Your task to perform on an android device: Open network settings Image 0: 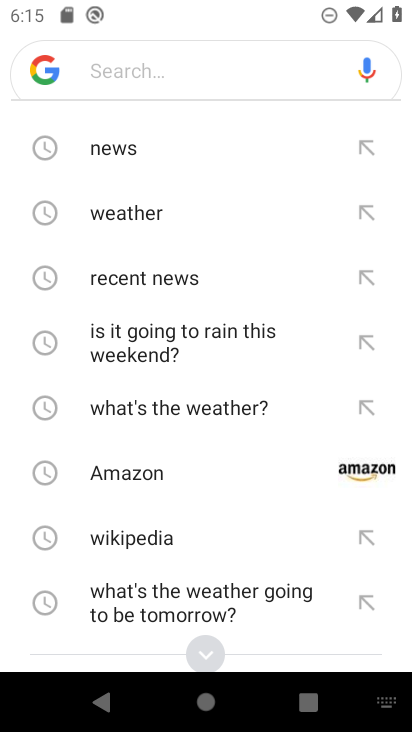
Step 0: drag from (149, 169) to (151, 573)
Your task to perform on an android device: Open network settings Image 1: 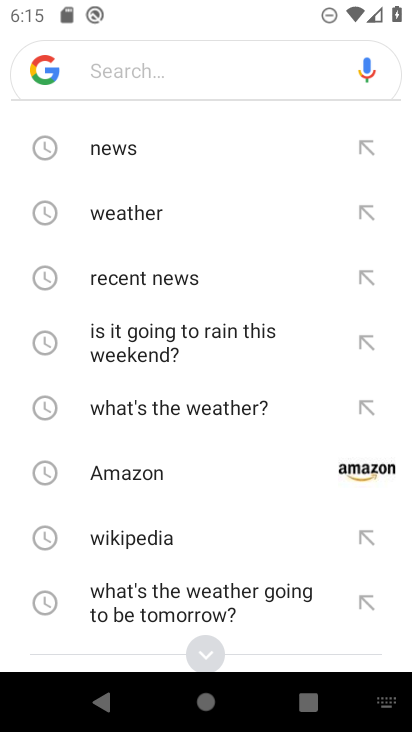
Step 1: press home button
Your task to perform on an android device: Open network settings Image 2: 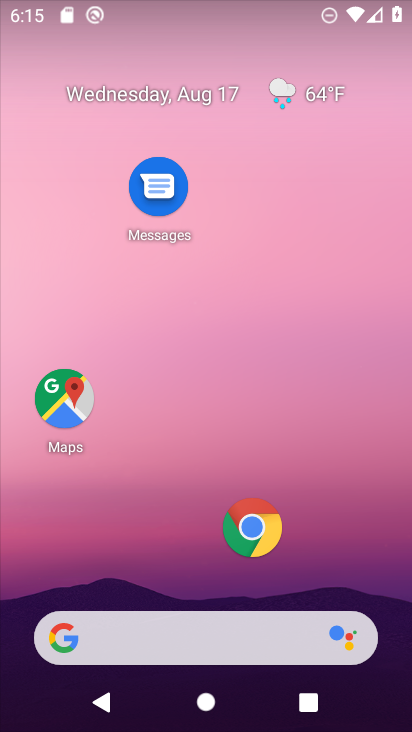
Step 2: drag from (239, 594) to (217, 313)
Your task to perform on an android device: Open network settings Image 3: 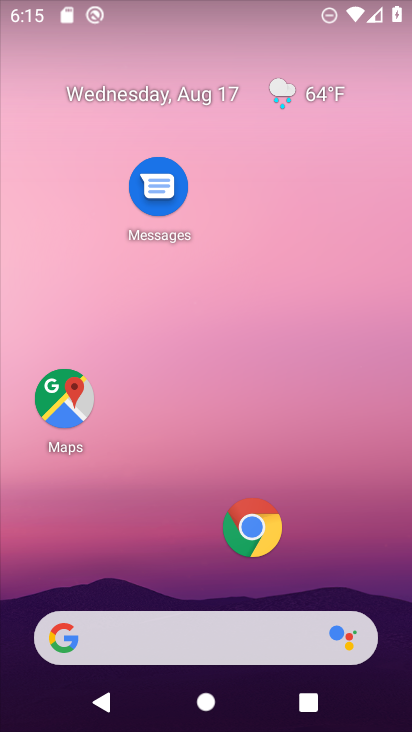
Step 3: drag from (208, 342) to (208, 292)
Your task to perform on an android device: Open network settings Image 4: 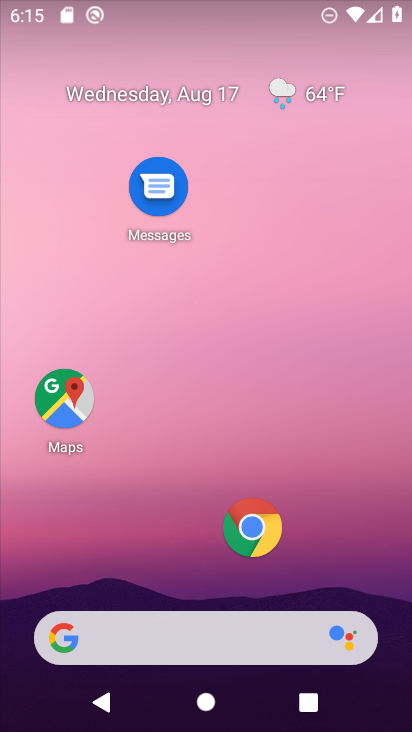
Step 4: drag from (146, 495) to (140, 186)
Your task to perform on an android device: Open network settings Image 5: 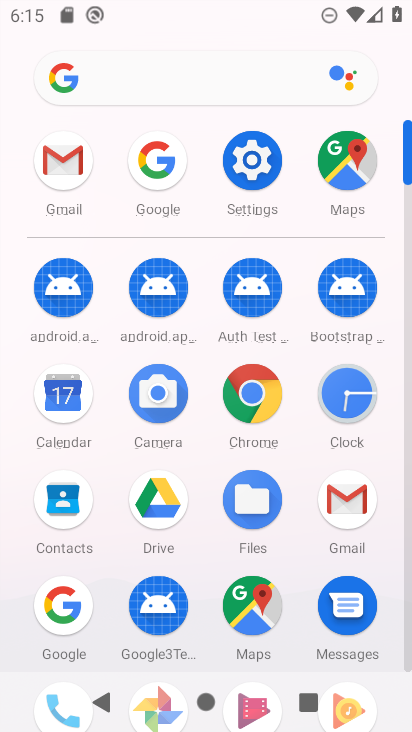
Step 5: click (253, 170)
Your task to perform on an android device: Open network settings Image 6: 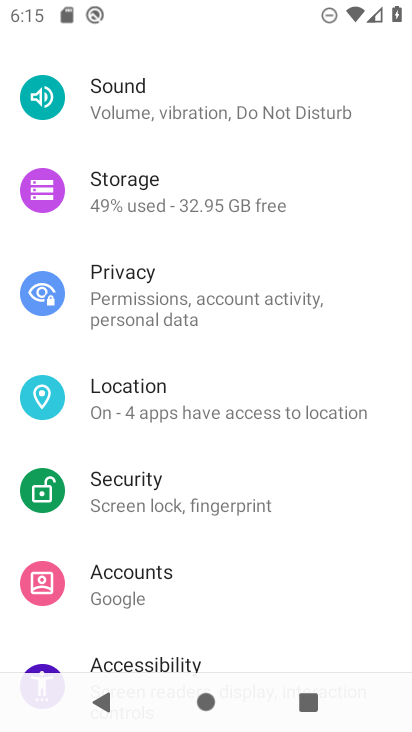
Step 6: drag from (110, 96) to (110, 528)
Your task to perform on an android device: Open network settings Image 7: 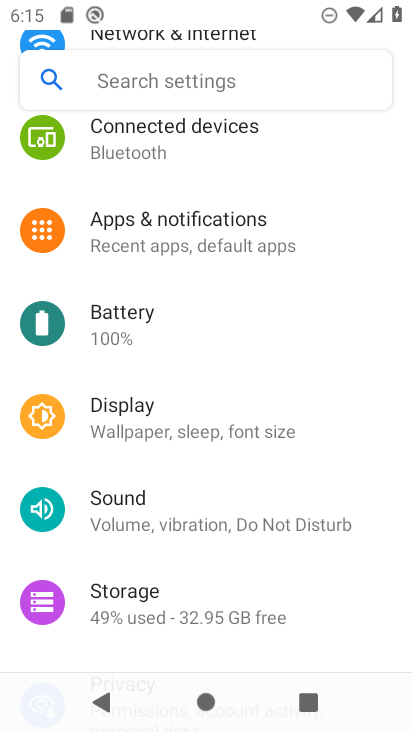
Step 7: drag from (129, 171) to (129, 566)
Your task to perform on an android device: Open network settings Image 8: 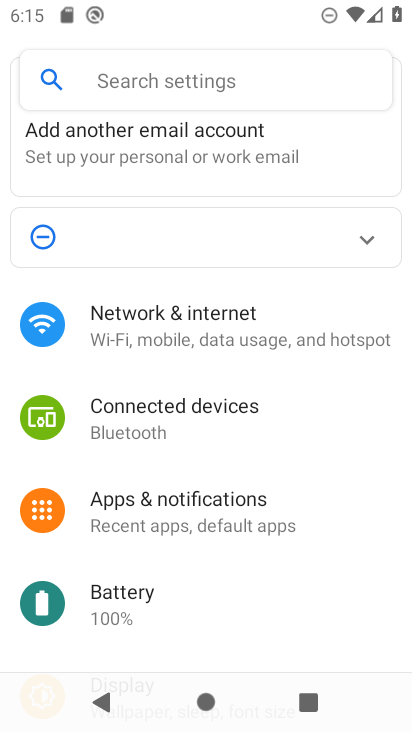
Step 8: click (151, 330)
Your task to perform on an android device: Open network settings Image 9: 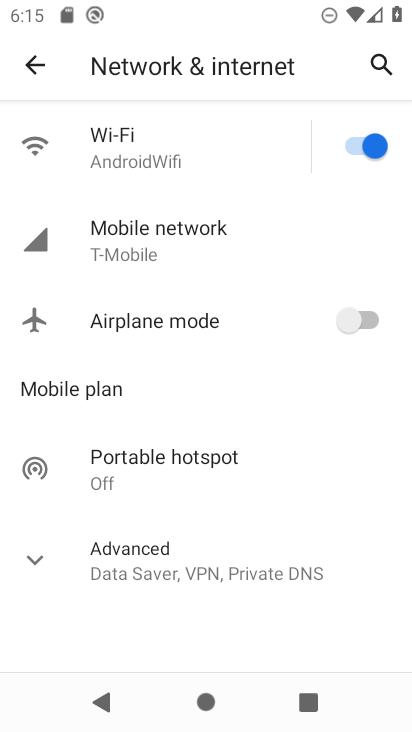
Step 9: click (153, 244)
Your task to perform on an android device: Open network settings Image 10: 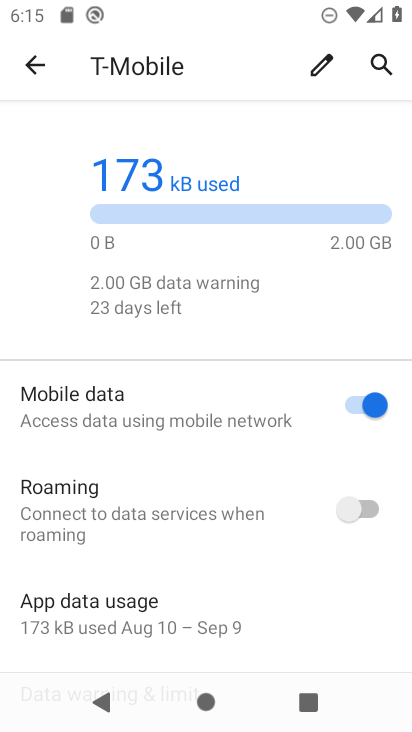
Step 10: task complete